Your task to perform on an android device: change the clock display to analog Image 0: 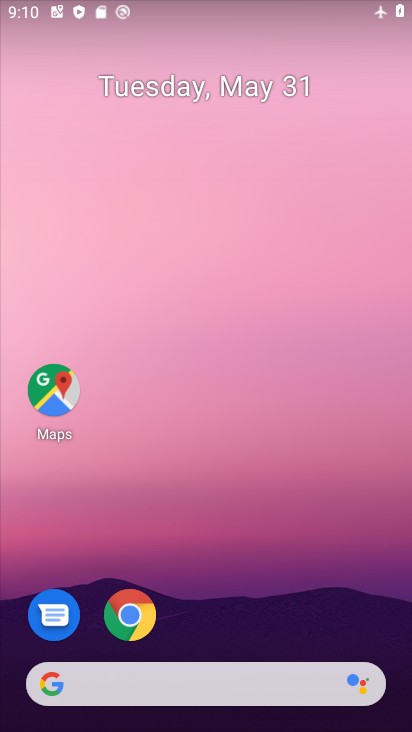
Step 0: drag from (373, 634) to (316, 115)
Your task to perform on an android device: change the clock display to analog Image 1: 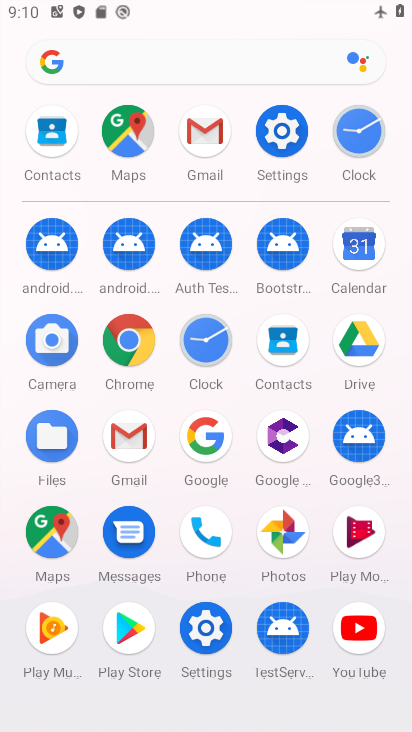
Step 1: click (208, 630)
Your task to perform on an android device: change the clock display to analog Image 2: 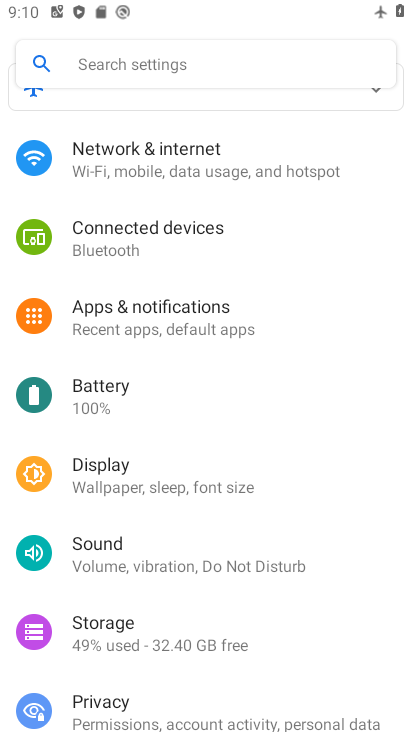
Step 2: press home button
Your task to perform on an android device: change the clock display to analog Image 3: 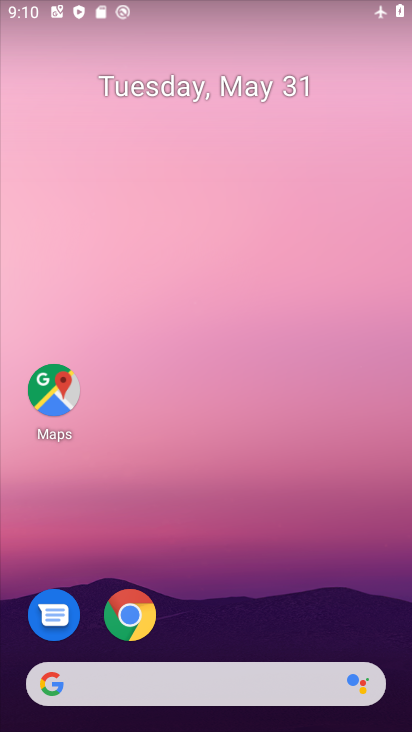
Step 3: drag from (343, 599) to (274, 83)
Your task to perform on an android device: change the clock display to analog Image 4: 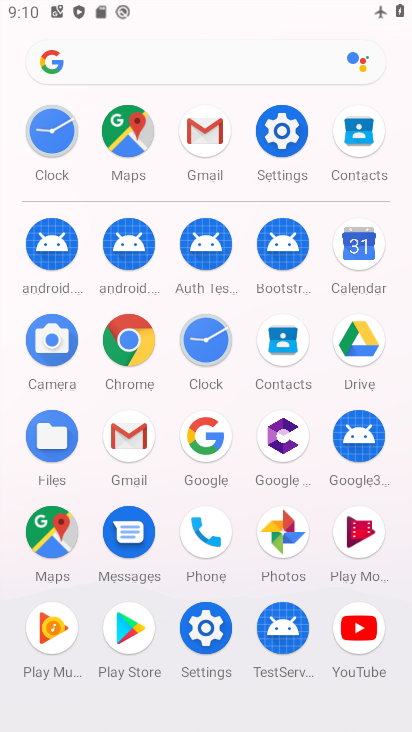
Step 4: click (207, 343)
Your task to perform on an android device: change the clock display to analog Image 5: 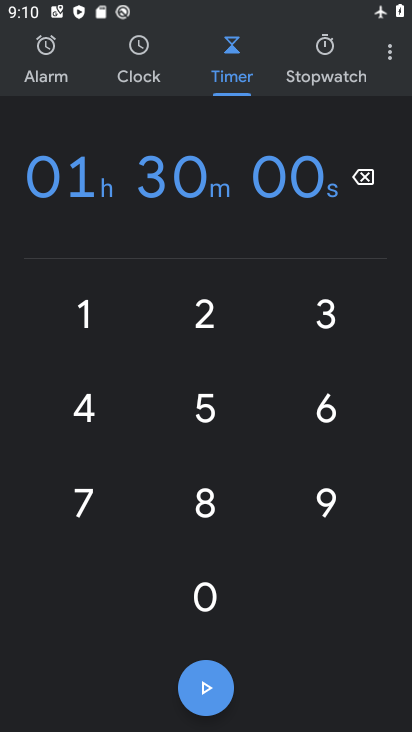
Step 5: click (391, 60)
Your task to perform on an android device: change the clock display to analog Image 6: 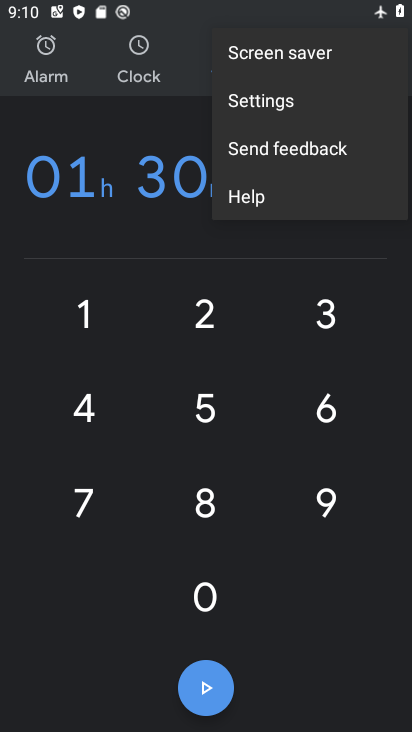
Step 6: click (255, 100)
Your task to perform on an android device: change the clock display to analog Image 7: 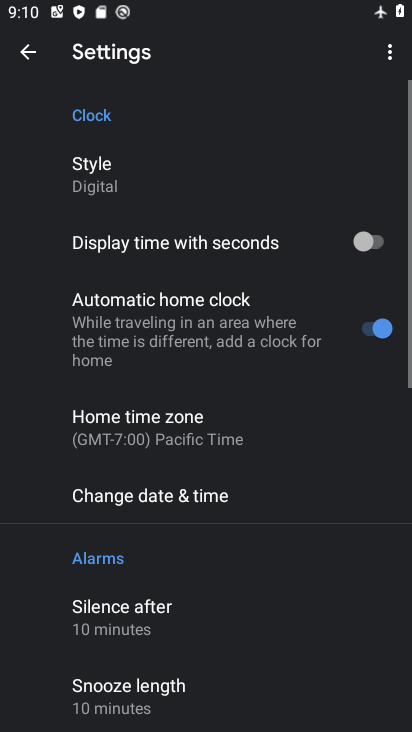
Step 7: click (96, 176)
Your task to perform on an android device: change the clock display to analog Image 8: 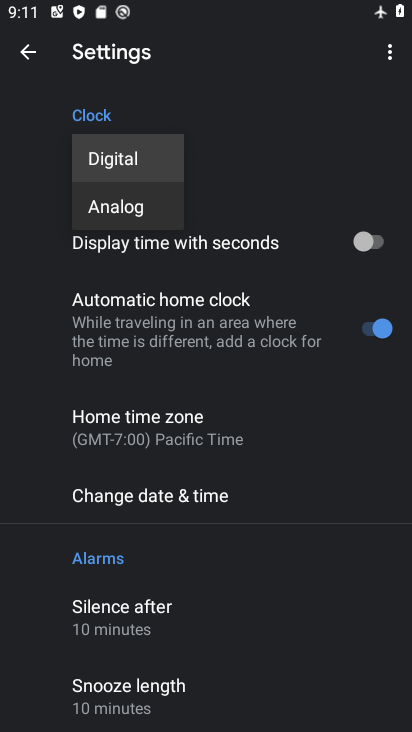
Step 8: click (109, 203)
Your task to perform on an android device: change the clock display to analog Image 9: 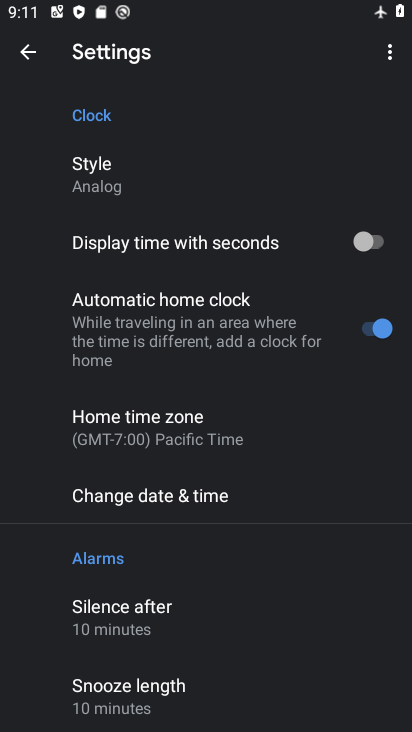
Step 9: task complete